Your task to perform on an android device: Open the map Image 0: 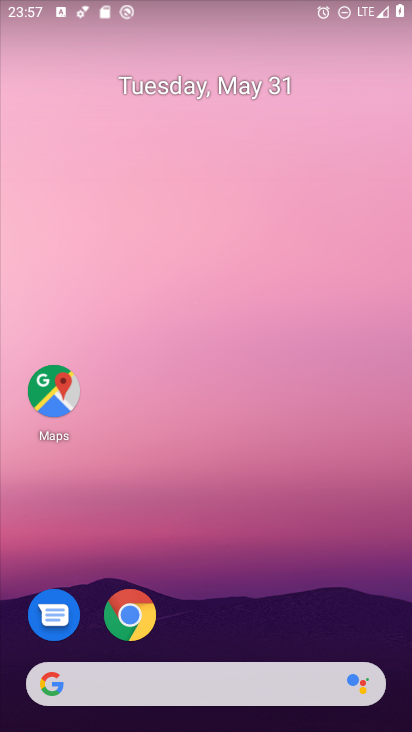
Step 0: click (53, 391)
Your task to perform on an android device: Open the map Image 1: 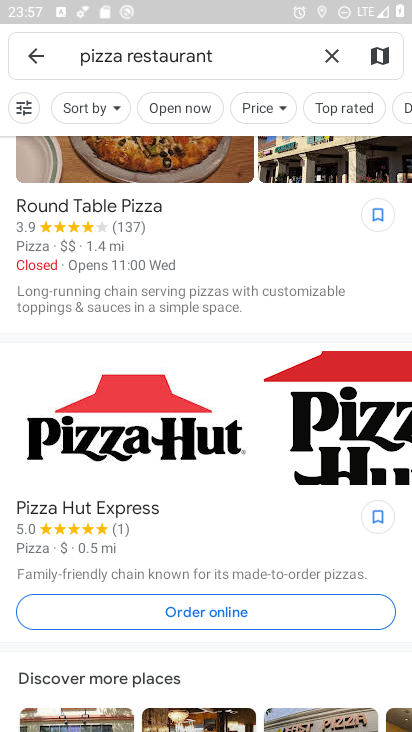
Step 1: click (332, 53)
Your task to perform on an android device: Open the map Image 2: 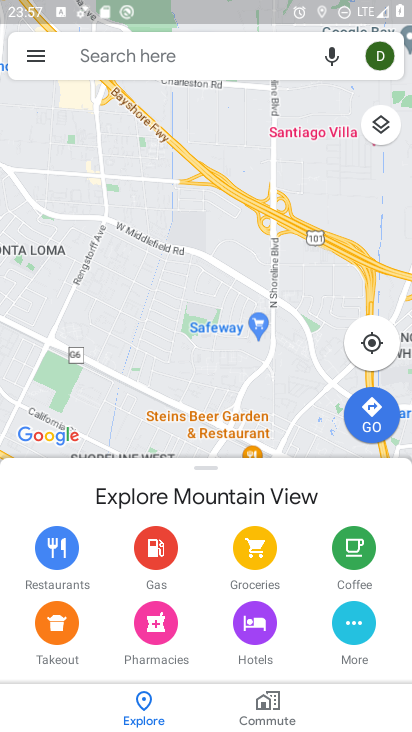
Step 2: task complete